Your task to perform on an android device: Clear all items from cart on target.com. Add acer nitro to the cart on target.com, then select checkout. Image 0: 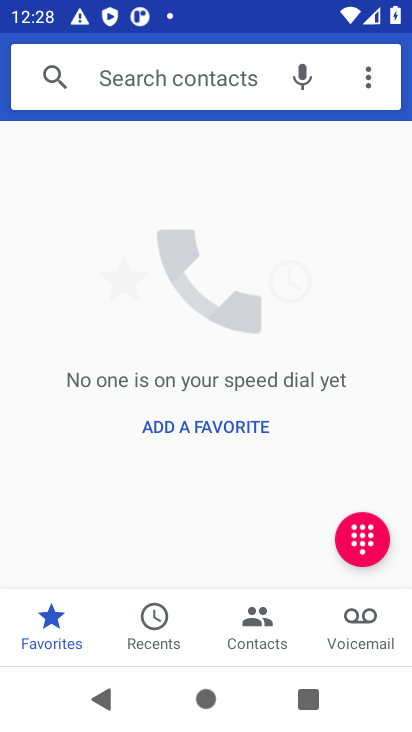
Step 0: press home button
Your task to perform on an android device: Clear all items from cart on target.com. Add acer nitro to the cart on target.com, then select checkout. Image 1: 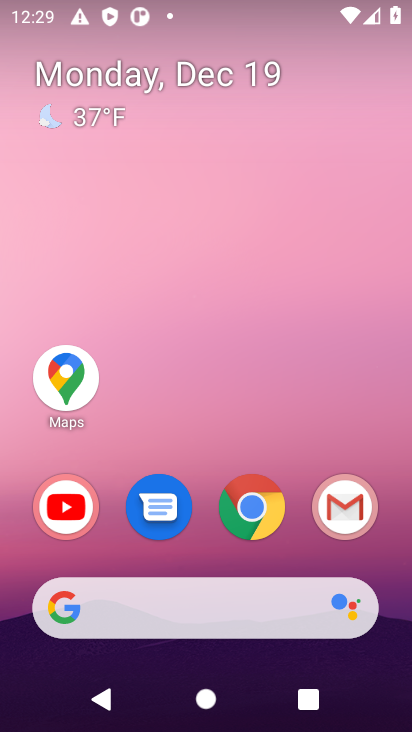
Step 1: click (254, 515)
Your task to perform on an android device: Clear all items from cart on target.com. Add acer nitro to the cart on target.com, then select checkout. Image 2: 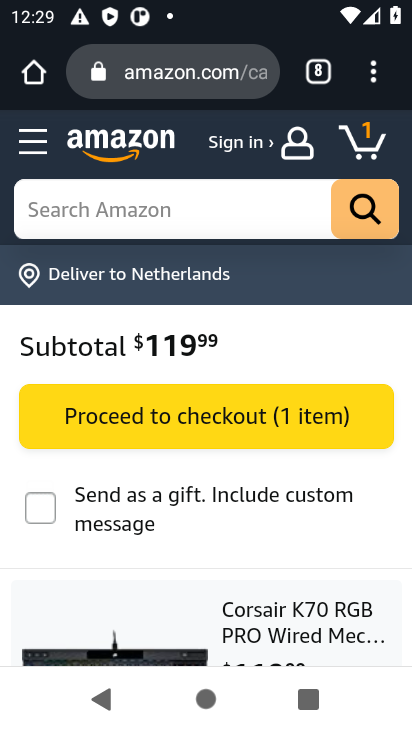
Step 2: click (167, 80)
Your task to perform on an android device: Clear all items from cart on target.com. Add acer nitro to the cart on target.com, then select checkout. Image 3: 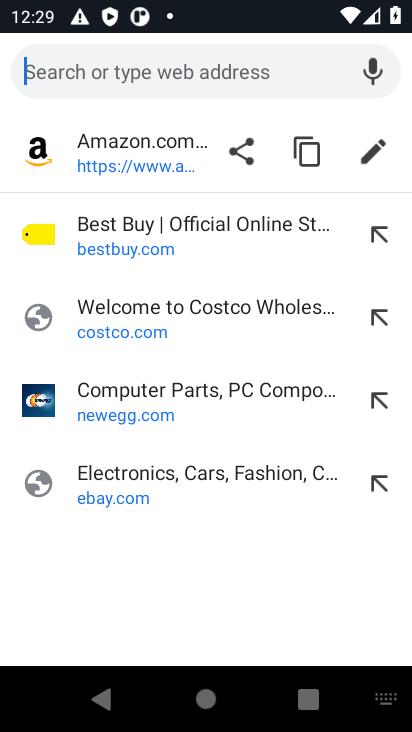
Step 3: type "target.com"
Your task to perform on an android device: Clear all items from cart on target.com. Add acer nitro to the cart on target.com, then select checkout. Image 4: 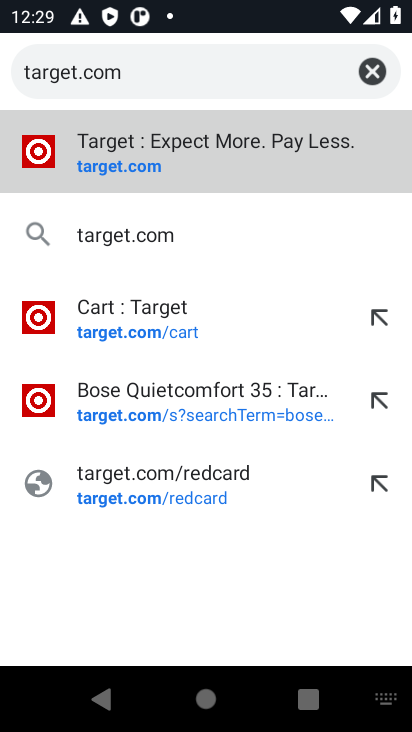
Step 4: click (97, 167)
Your task to perform on an android device: Clear all items from cart on target.com. Add acer nitro to the cart on target.com, then select checkout. Image 5: 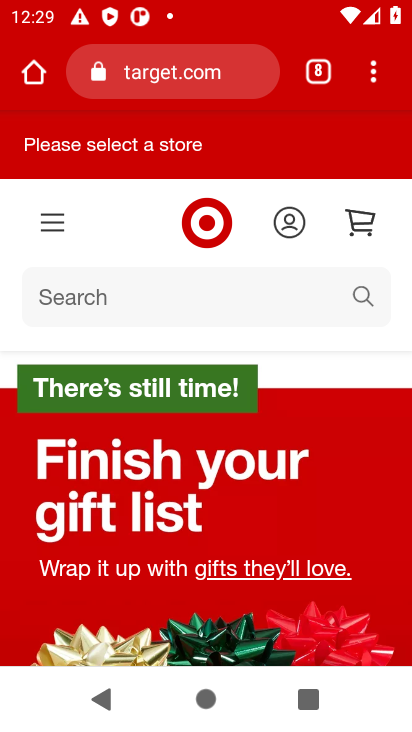
Step 5: click (363, 217)
Your task to perform on an android device: Clear all items from cart on target.com. Add acer nitro to the cart on target.com, then select checkout. Image 6: 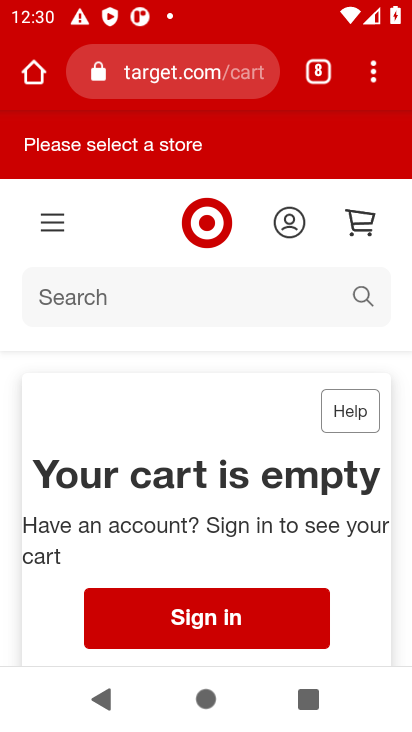
Step 6: drag from (160, 496) to (179, 294)
Your task to perform on an android device: Clear all items from cart on target.com. Add acer nitro to the cart on target.com, then select checkout. Image 7: 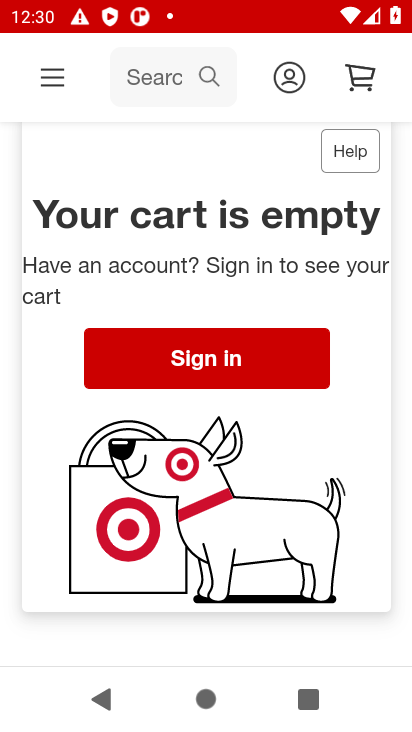
Step 7: drag from (173, 231) to (101, 534)
Your task to perform on an android device: Clear all items from cart on target.com. Add acer nitro to the cart on target.com, then select checkout. Image 8: 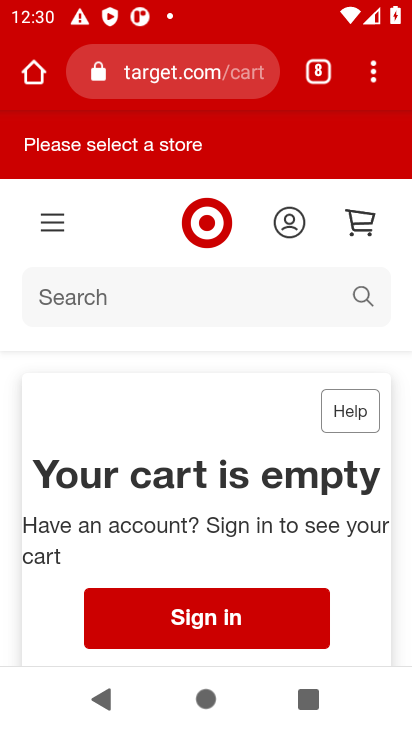
Step 8: click (93, 301)
Your task to perform on an android device: Clear all items from cart on target.com. Add acer nitro to the cart on target.com, then select checkout. Image 9: 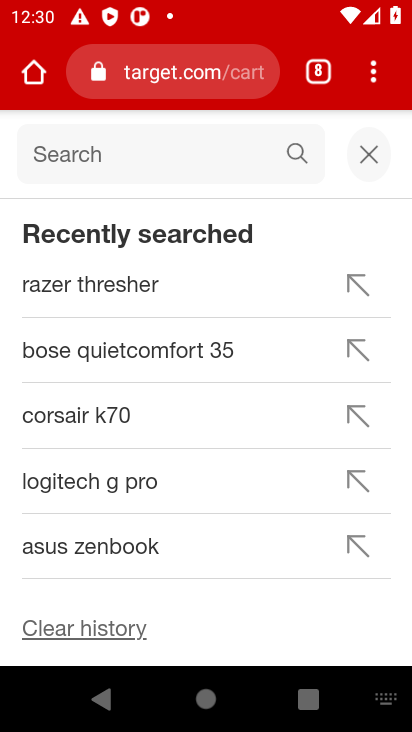
Step 9: type "acer nitro "
Your task to perform on an android device: Clear all items from cart on target.com. Add acer nitro to the cart on target.com, then select checkout. Image 10: 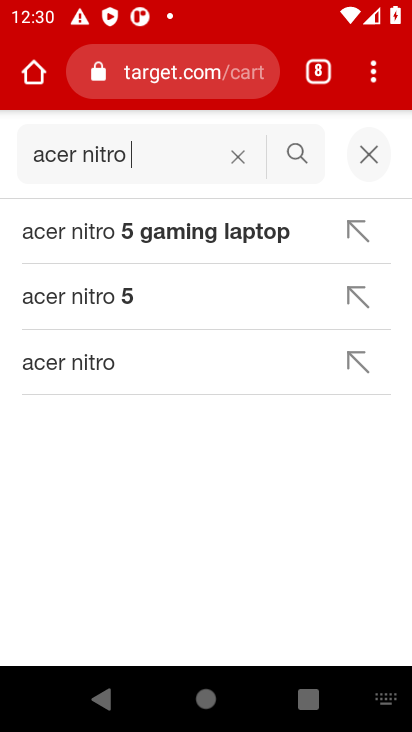
Step 10: click (72, 365)
Your task to perform on an android device: Clear all items from cart on target.com. Add acer nitro to the cart on target.com, then select checkout. Image 11: 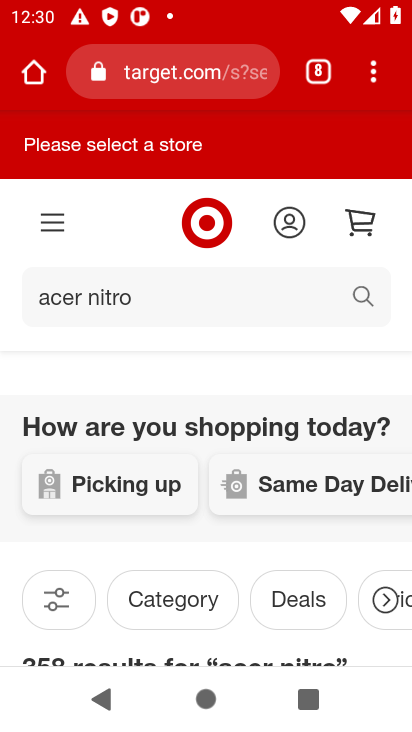
Step 11: drag from (205, 518) to (204, 156)
Your task to perform on an android device: Clear all items from cart on target.com. Add acer nitro to the cart on target.com, then select checkout. Image 12: 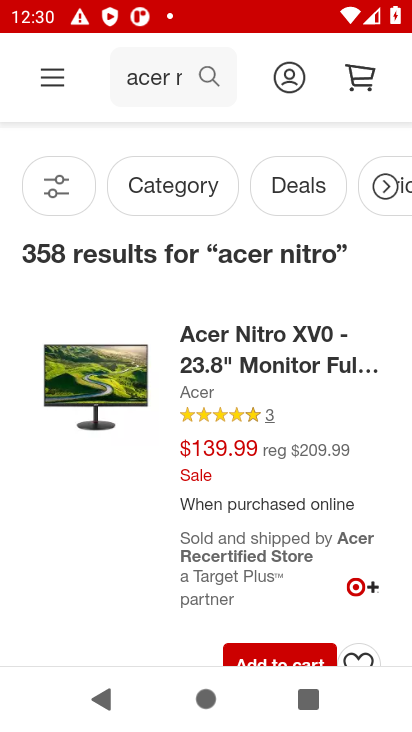
Step 12: drag from (146, 465) to (172, 308)
Your task to perform on an android device: Clear all items from cart on target.com. Add acer nitro to the cart on target.com, then select checkout. Image 13: 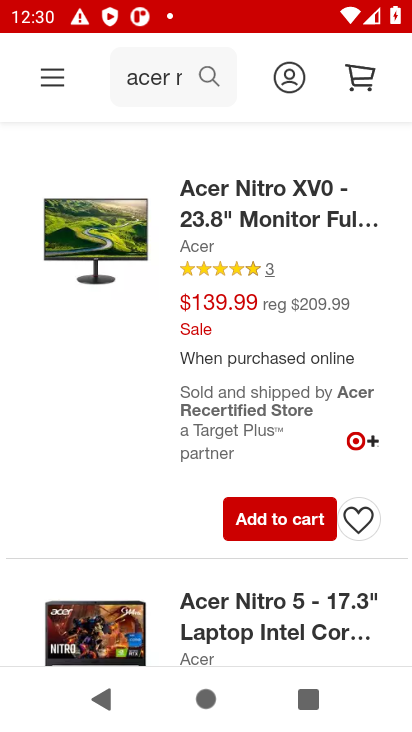
Step 13: click (270, 524)
Your task to perform on an android device: Clear all items from cart on target.com. Add acer nitro to the cart on target.com, then select checkout. Image 14: 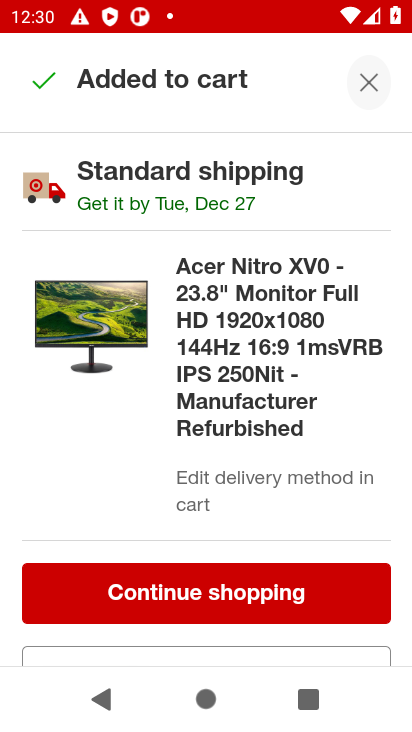
Step 14: drag from (236, 519) to (244, 208)
Your task to perform on an android device: Clear all items from cart on target.com. Add acer nitro to the cart on target.com, then select checkout. Image 15: 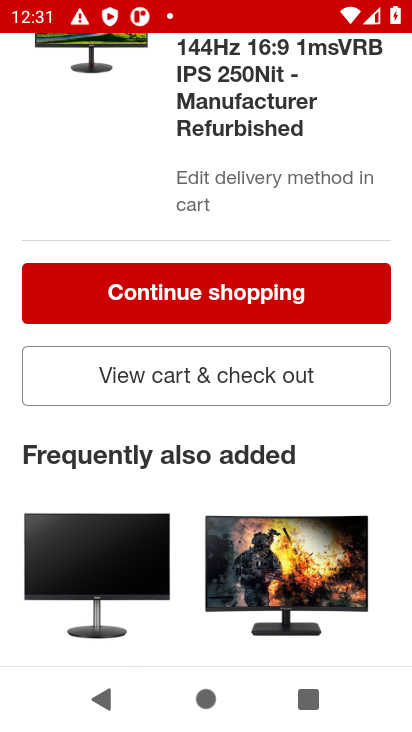
Step 15: click (205, 371)
Your task to perform on an android device: Clear all items from cart on target.com. Add acer nitro to the cart on target.com, then select checkout. Image 16: 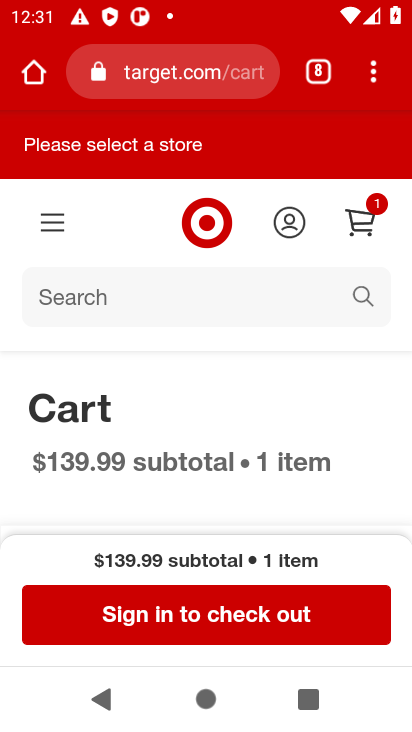
Step 16: click (178, 607)
Your task to perform on an android device: Clear all items from cart on target.com. Add acer nitro to the cart on target.com, then select checkout. Image 17: 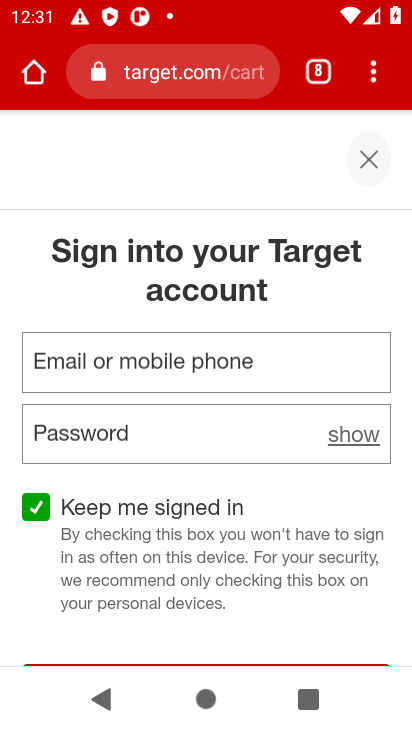
Step 17: task complete